Your task to perform on an android device: turn off location Image 0: 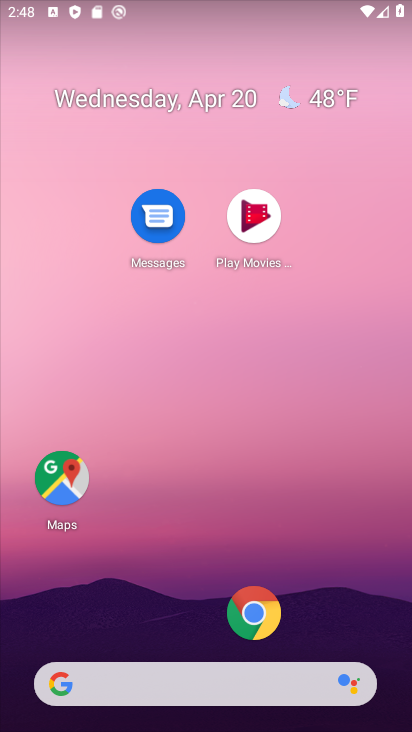
Step 0: drag from (162, 454) to (230, 0)
Your task to perform on an android device: turn off location Image 1: 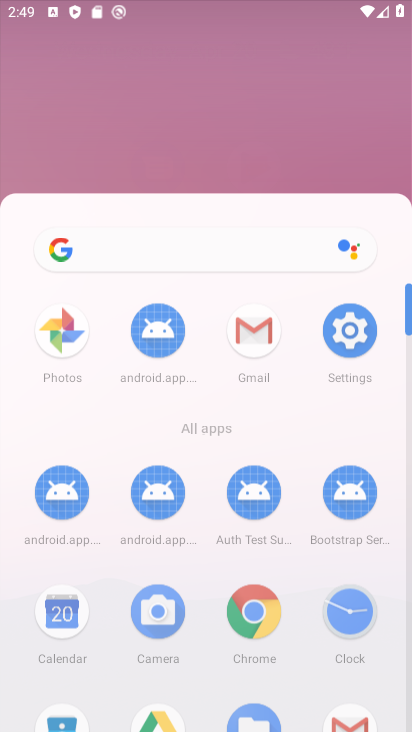
Step 1: drag from (189, 433) to (198, 72)
Your task to perform on an android device: turn off location Image 2: 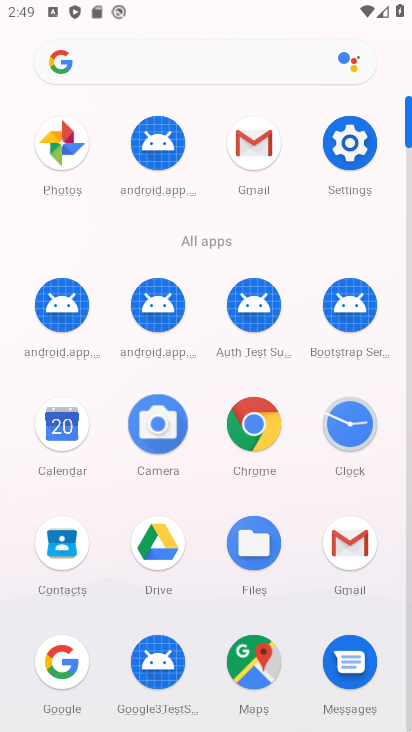
Step 2: click (214, 43)
Your task to perform on an android device: turn off location Image 3: 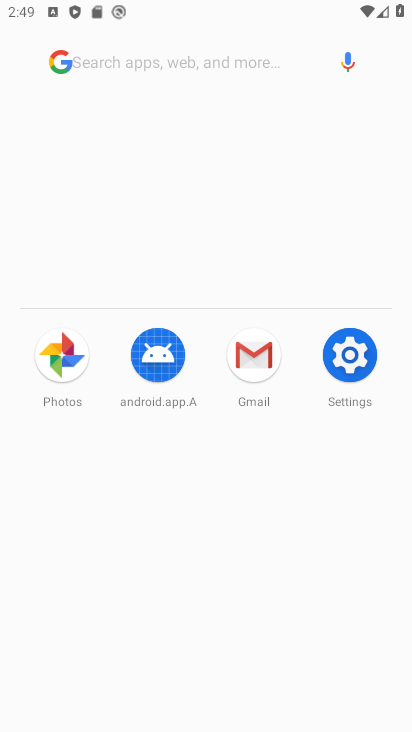
Step 3: click (356, 146)
Your task to perform on an android device: turn off location Image 4: 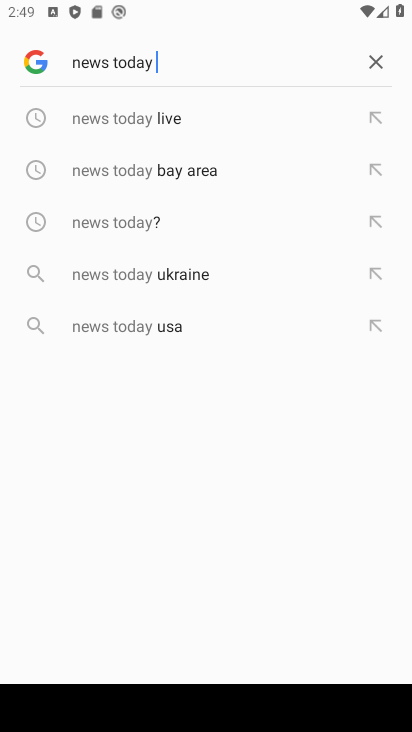
Step 4: press home button
Your task to perform on an android device: turn off location Image 5: 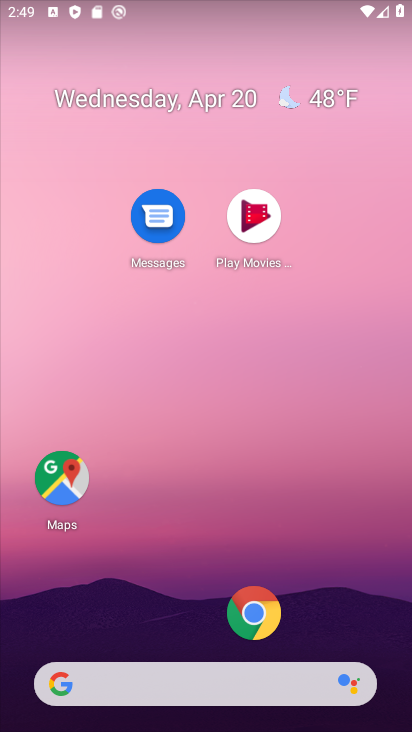
Step 5: drag from (290, 373) to (267, 1)
Your task to perform on an android device: turn off location Image 6: 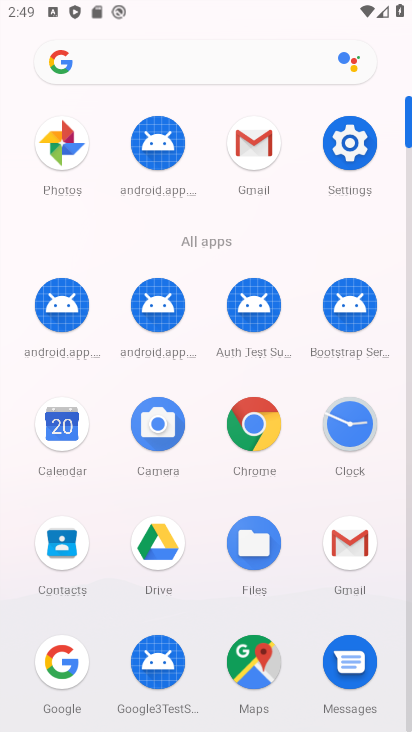
Step 6: click (349, 162)
Your task to perform on an android device: turn off location Image 7: 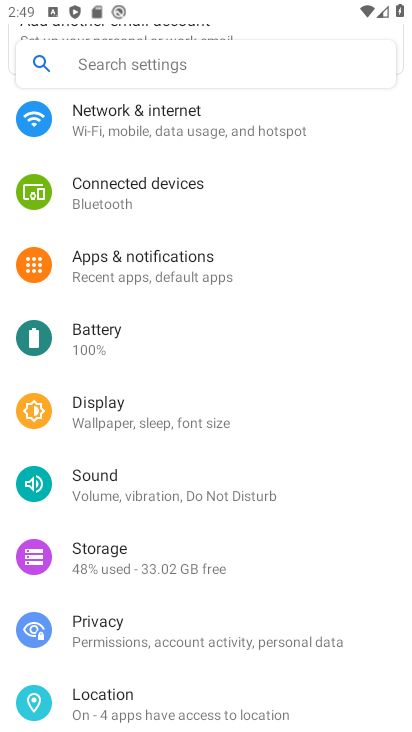
Step 7: click (124, 716)
Your task to perform on an android device: turn off location Image 8: 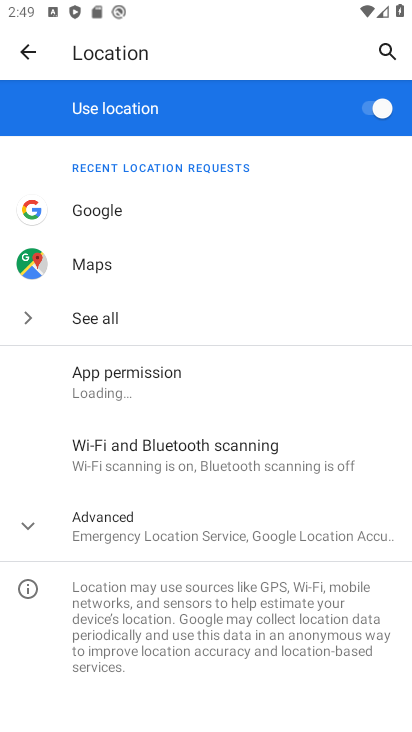
Step 8: click (386, 111)
Your task to perform on an android device: turn off location Image 9: 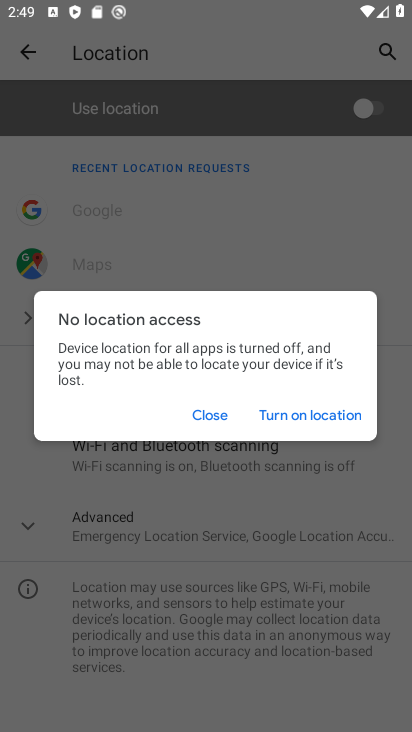
Step 9: task complete